Your task to perform on an android device: turn off javascript in the chrome app Image 0: 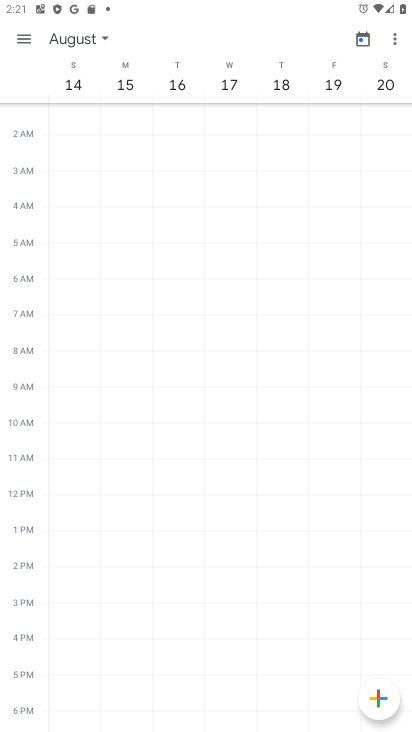
Step 0: press home button
Your task to perform on an android device: turn off javascript in the chrome app Image 1: 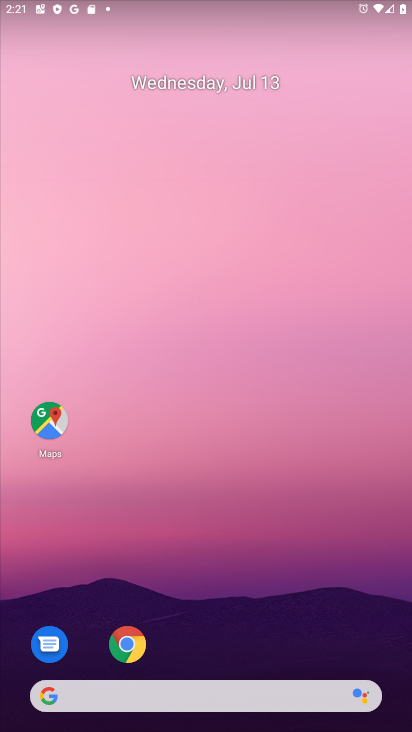
Step 1: drag from (193, 660) to (177, 130)
Your task to perform on an android device: turn off javascript in the chrome app Image 2: 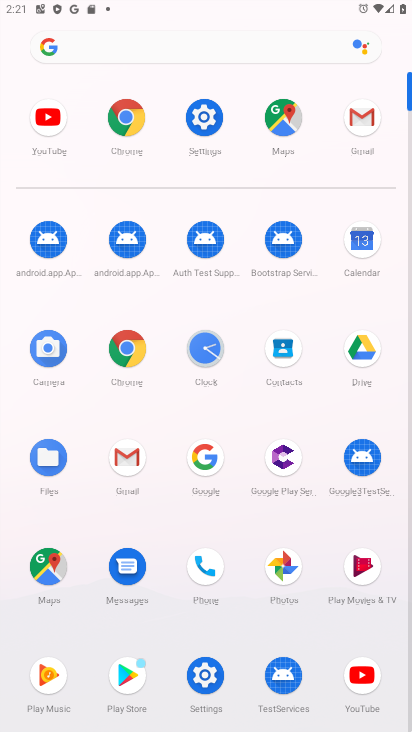
Step 2: click (115, 121)
Your task to perform on an android device: turn off javascript in the chrome app Image 3: 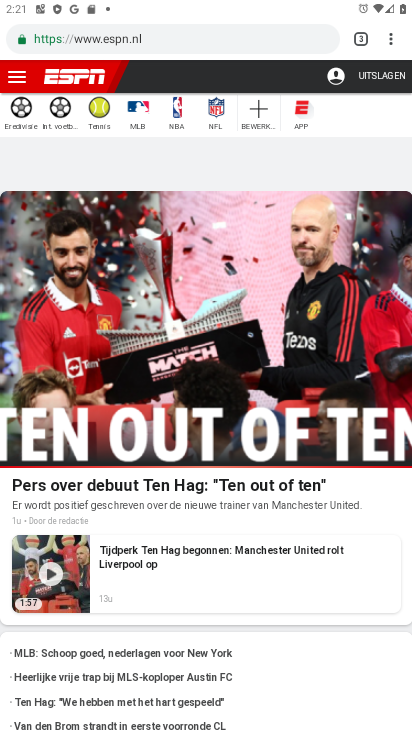
Step 3: drag from (391, 38) to (273, 471)
Your task to perform on an android device: turn off javascript in the chrome app Image 4: 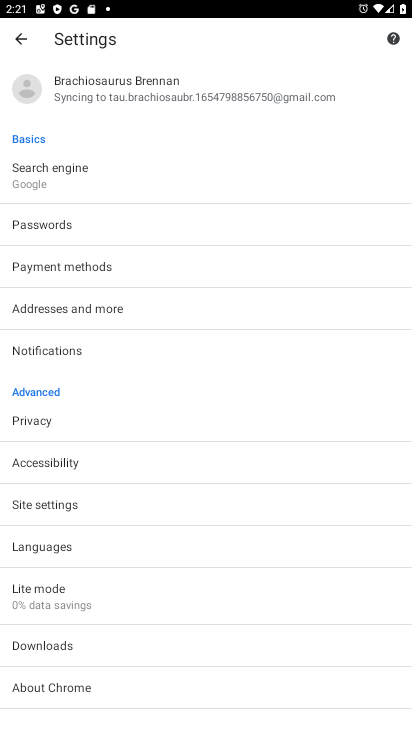
Step 4: click (117, 502)
Your task to perform on an android device: turn off javascript in the chrome app Image 5: 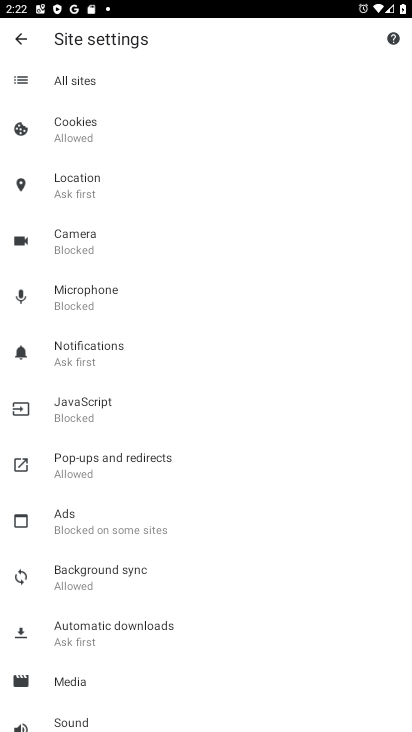
Step 5: click (82, 415)
Your task to perform on an android device: turn off javascript in the chrome app Image 6: 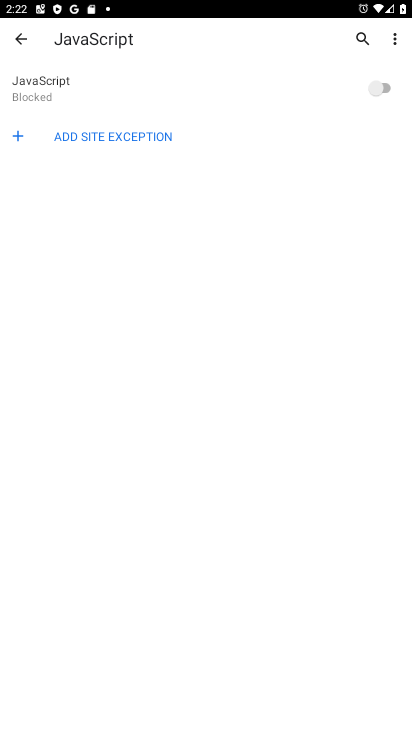
Step 6: task complete